Your task to perform on an android device: open wifi settings Image 0: 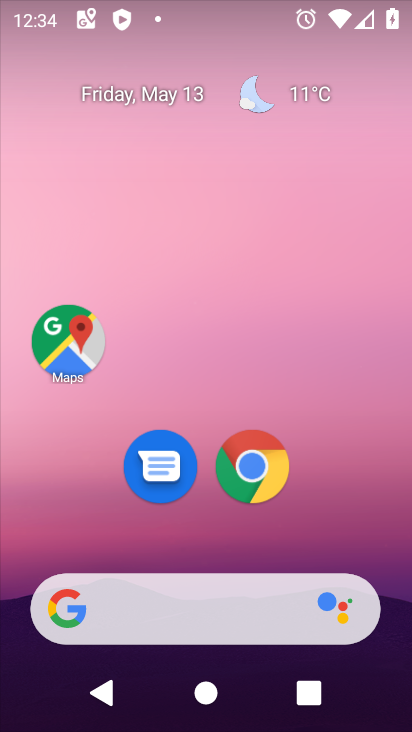
Step 0: drag from (357, 527) to (290, 146)
Your task to perform on an android device: open wifi settings Image 1: 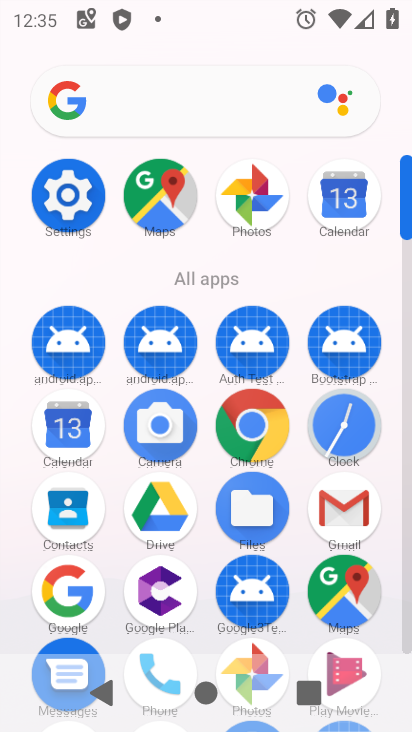
Step 1: click (49, 199)
Your task to perform on an android device: open wifi settings Image 2: 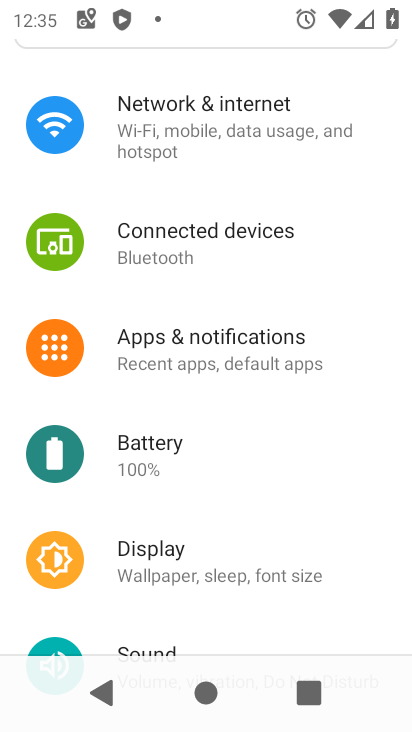
Step 2: drag from (81, 152) to (150, 329)
Your task to perform on an android device: open wifi settings Image 3: 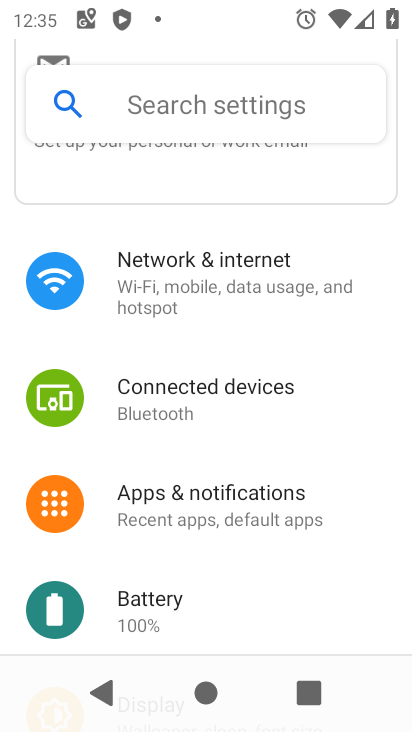
Step 3: click (178, 301)
Your task to perform on an android device: open wifi settings Image 4: 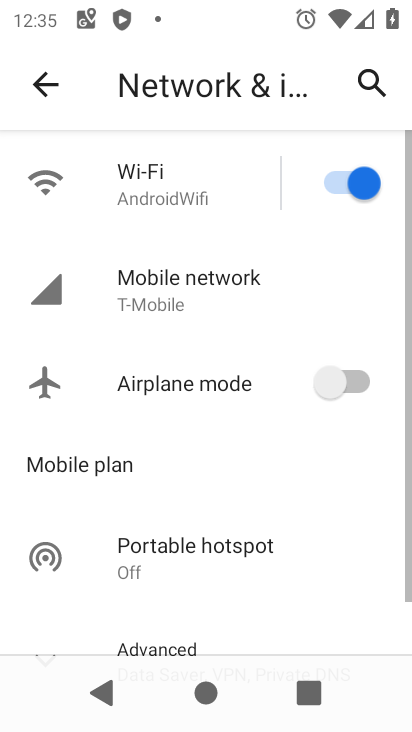
Step 4: click (167, 188)
Your task to perform on an android device: open wifi settings Image 5: 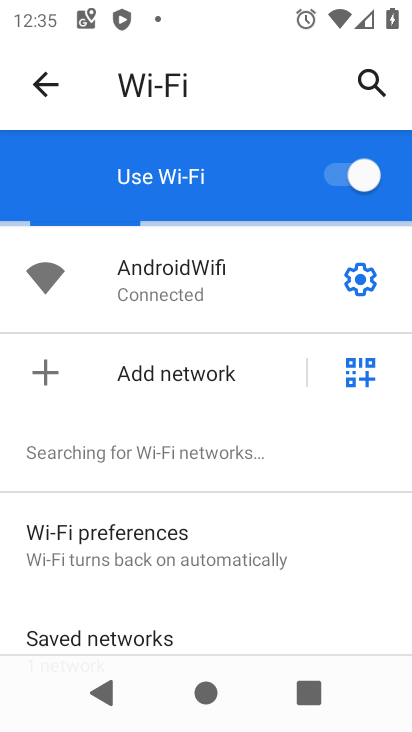
Step 5: task complete